Your task to perform on an android device: Open Yahoo.com Image 0: 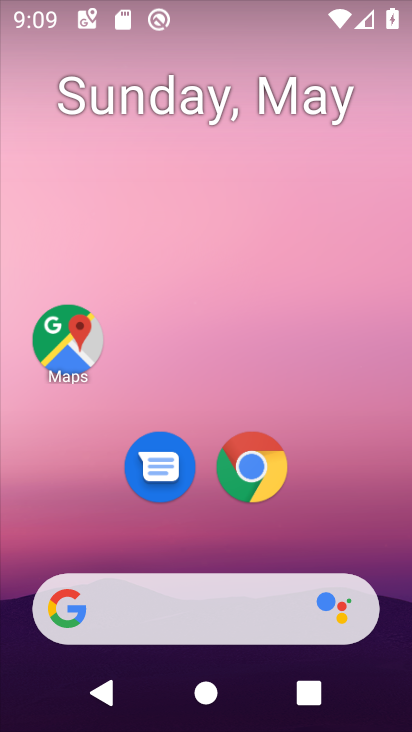
Step 0: drag from (329, 515) to (353, 66)
Your task to perform on an android device: Open Yahoo.com Image 1: 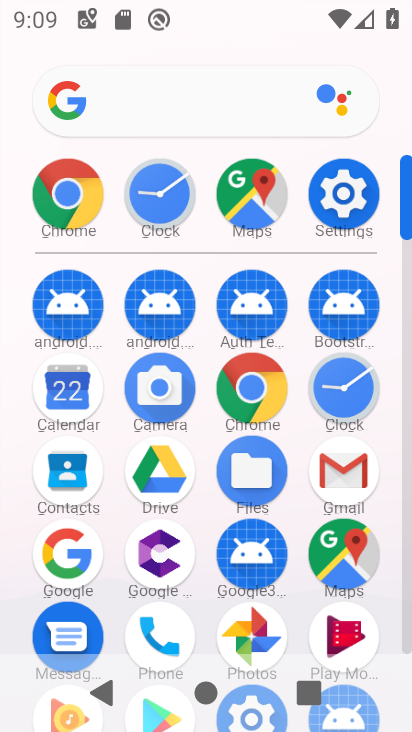
Step 1: click (254, 386)
Your task to perform on an android device: Open Yahoo.com Image 2: 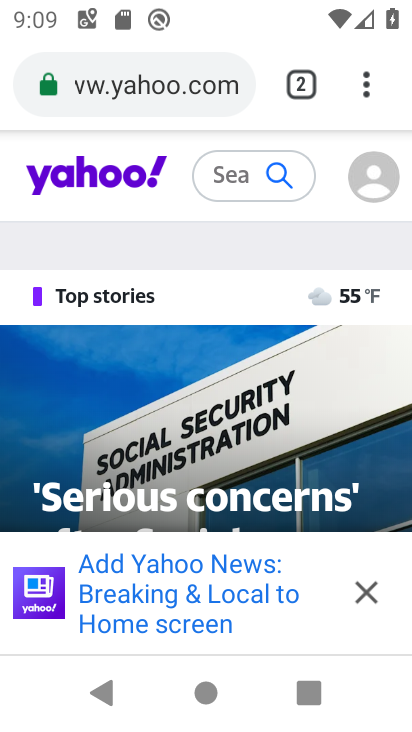
Step 2: click (211, 87)
Your task to perform on an android device: Open Yahoo.com Image 3: 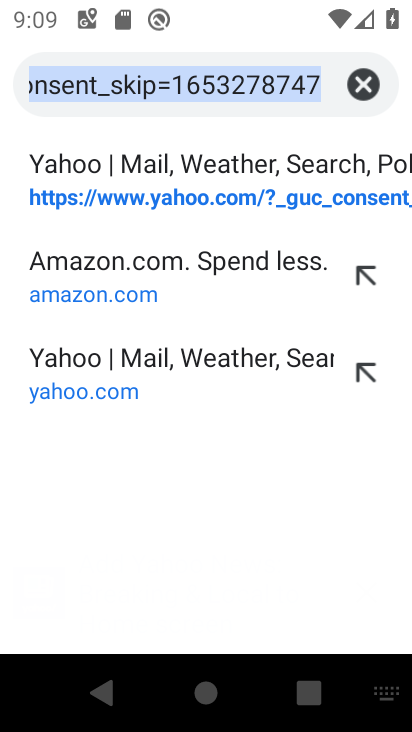
Step 3: click (166, 184)
Your task to perform on an android device: Open Yahoo.com Image 4: 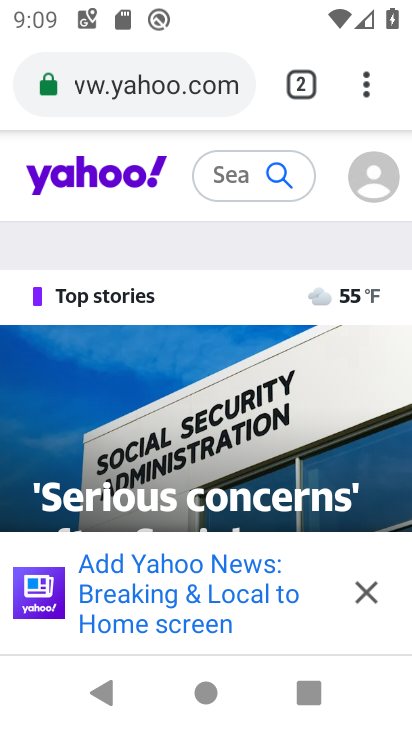
Step 4: task complete